Your task to perform on an android device: Open Google Image 0: 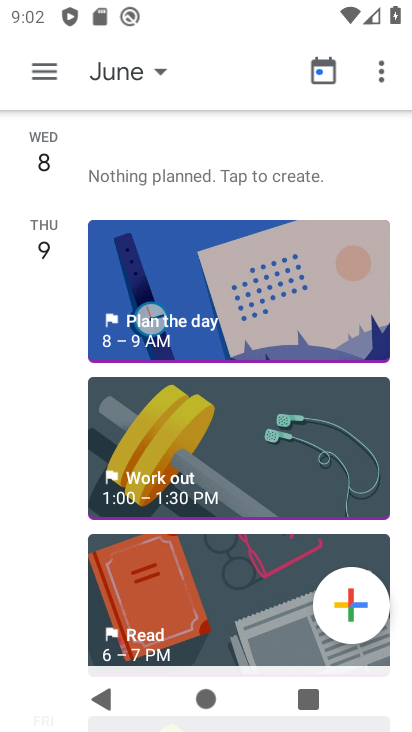
Step 0: press home button
Your task to perform on an android device: Open Google Image 1: 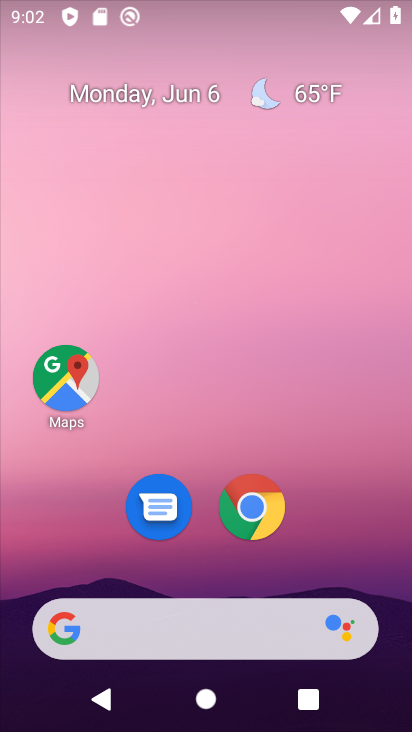
Step 1: drag from (198, 574) to (215, 222)
Your task to perform on an android device: Open Google Image 2: 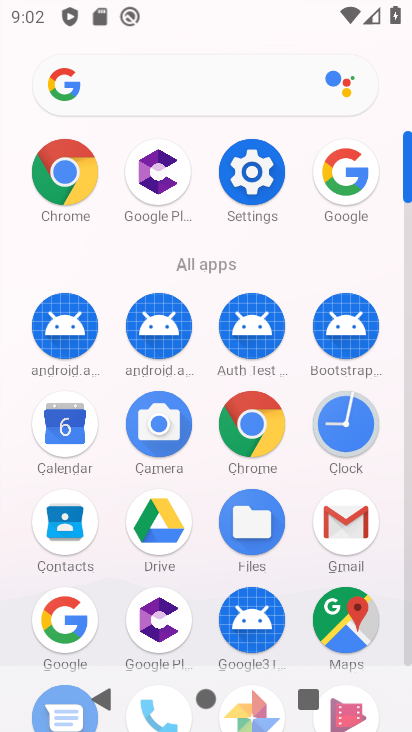
Step 2: click (57, 613)
Your task to perform on an android device: Open Google Image 3: 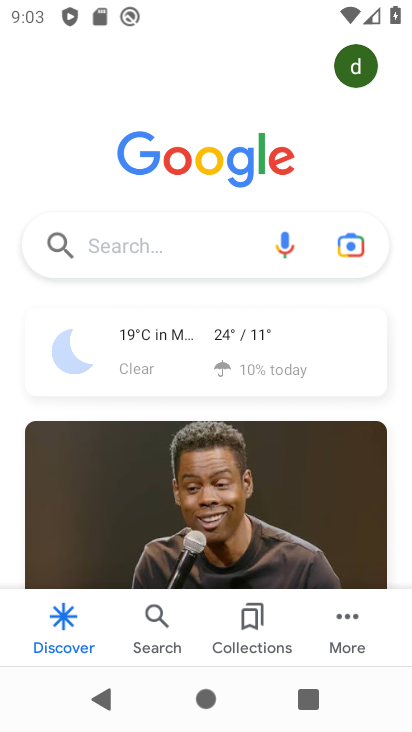
Step 3: task complete